Your task to perform on an android device: find photos in the google photos app Image 0: 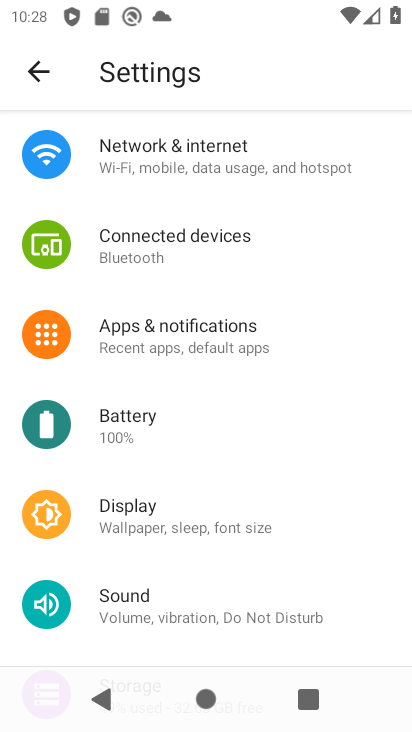
Step 0: press home button
Your task to perform on an android device: find photos in the google photos app Image 1: 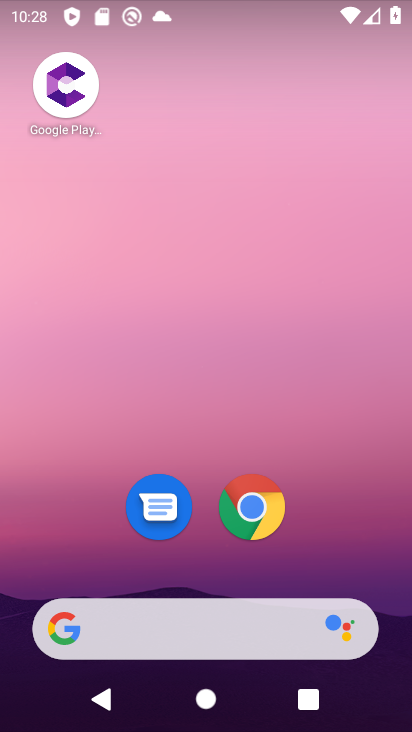
Step 1: drag from (367, 564) to (337, 180)
Your task to perform on an android device: find photos in the google photos app Image 2: 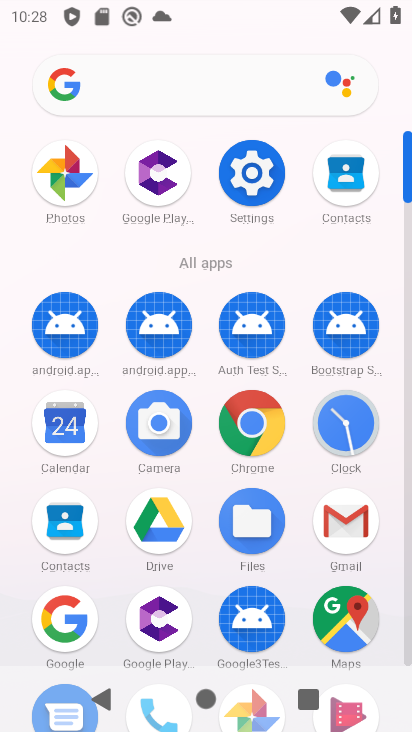
Step 2: click (69, 183)
Your task to perform on an android device: find photos in the google photos app Image 3: 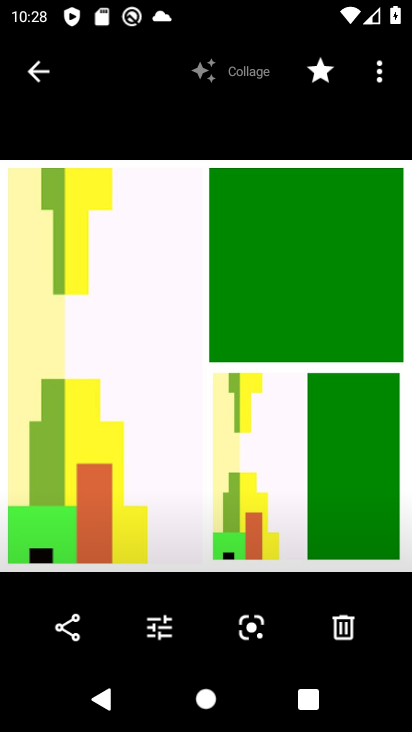
Step 3: click (37, 77)
Your task to perform on an android device: find photos in the google photos app Image 4: 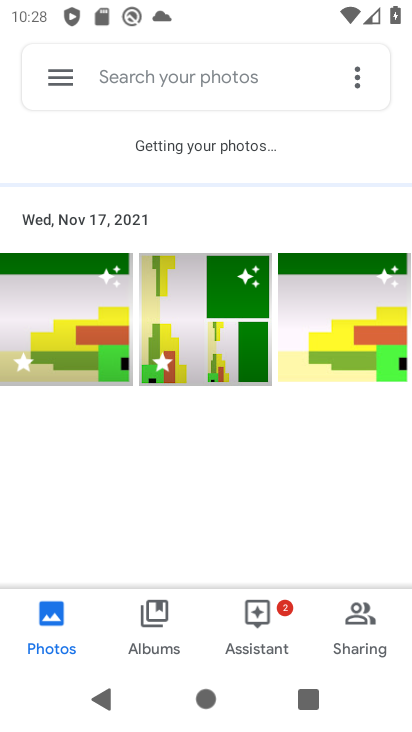
Step 4: click (37, 630)
Your task to perform on an android device: find photos in the google photos app Image 5: 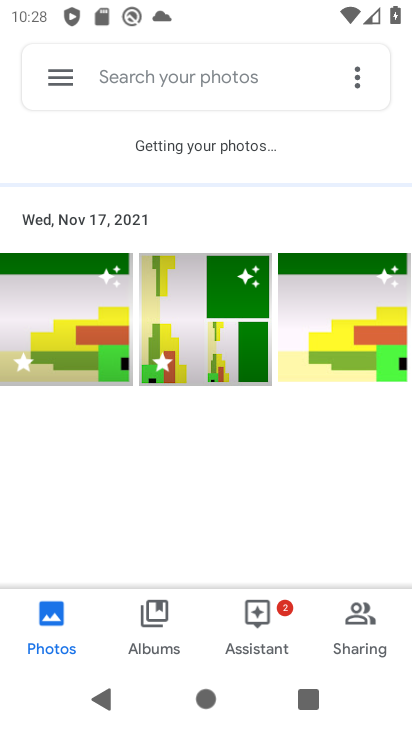
Step 5: task complete